Your task to perform on an android device: Open Google Chrome and click the shortcut for Amazon.com Image 0: 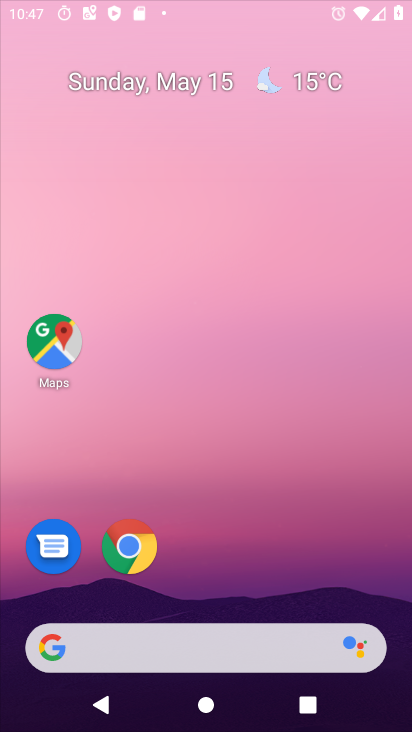
Step 0: press back button
Your task to perform on an android device: Open Google Chrome and click the shortcut for Amazon.com Image 1: 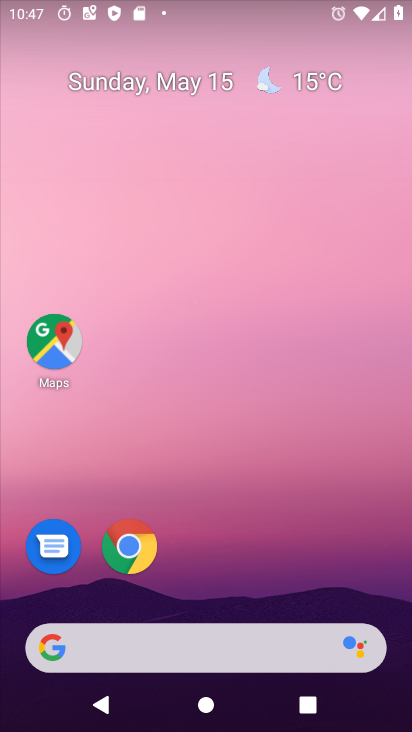
Step 1: click (197, 225)
Your task to perform on an android device: Open Google Chrome and click the shortcut for Amazon.com Image 2: 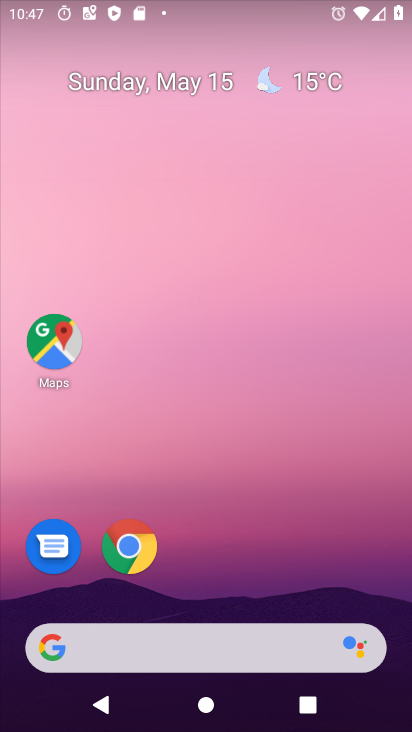
Step 2: drag from (278, 575) to (148, 34)
Your task to perform on an android device: Open Google Chrome and click the shortcut for Amazon.com Image 3: 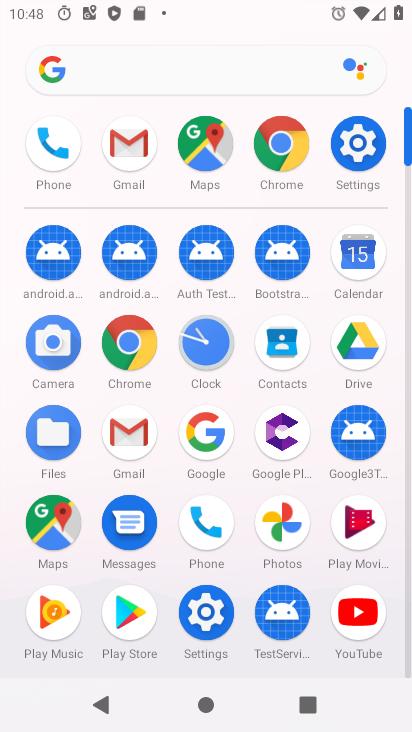
Step 3: click (272, 132)
Your task to perform on an android device: Open Google Chrome and click the shortcut for Amazon.com Image 4: 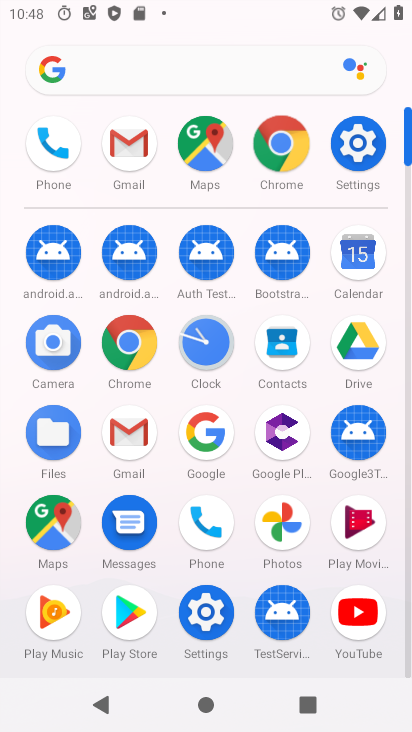
Step 4: click (280, 130)
Your task to perform on an android device: Open Google Chrome and click the shortcut for Amazon.com Image 5: 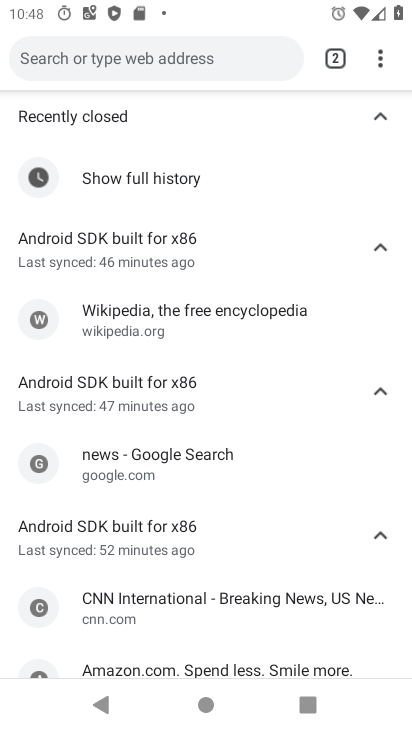
Step 5: click (378, 51)
Your task to perform on an android device: Open Google Chrome and click the shortcut for Amazon.com Image 6: 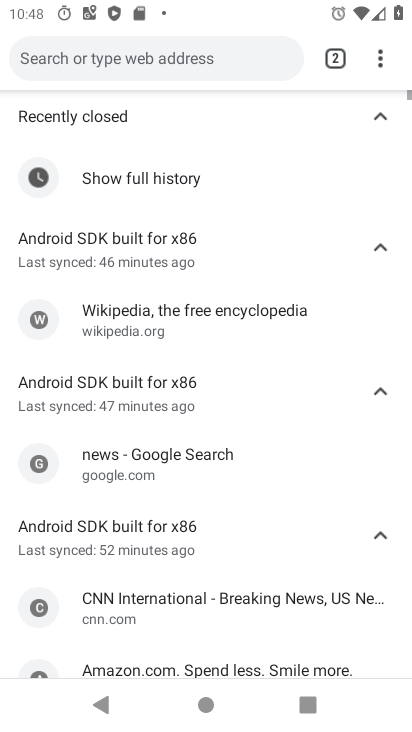
Step 6: drag from (375, 67) to (171, 112)
Your task to perform on an android device: Open Google Chrome and click the shortcut for Amazon.com Image 7: 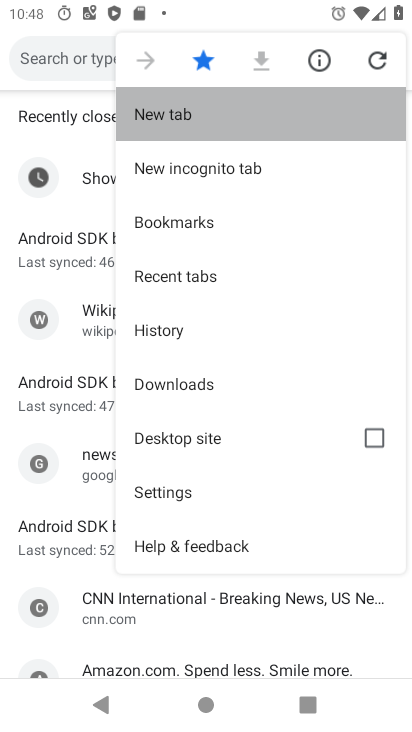
Step 7: click (170, 114)
Your task to perform on an android device: Open Google Chrome and click the shortcut for Amazon.com Image 8: 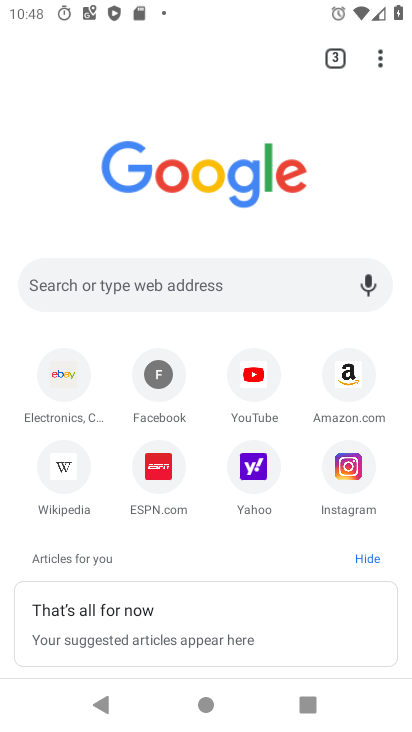
Step 8: click (341, 355)
Your task to perform on an android device: Open Google Chrome and click the shortcut for Amazon.com Image 9: 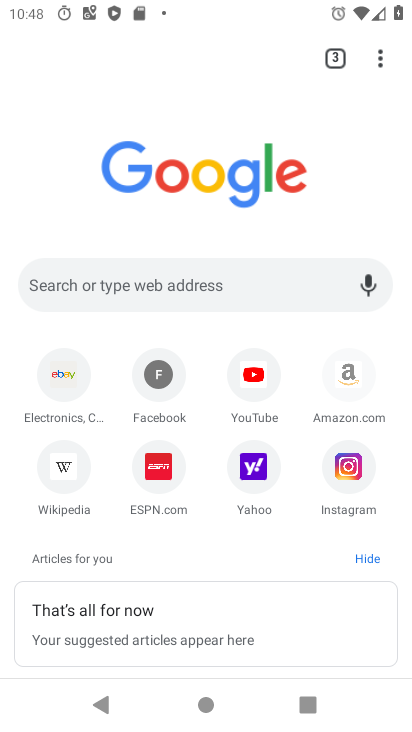
Step 9: click (341, 355)
Your task to perform on an android device: Open Google Chrome and click the shortcut for Amazon.com Image 10: 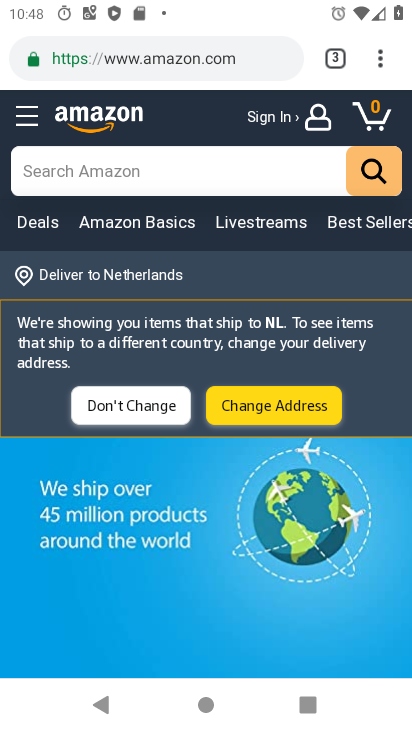
Step 10: task complete